Your task to perform on an android device: Is it going to rain tomorrow? Image 0: 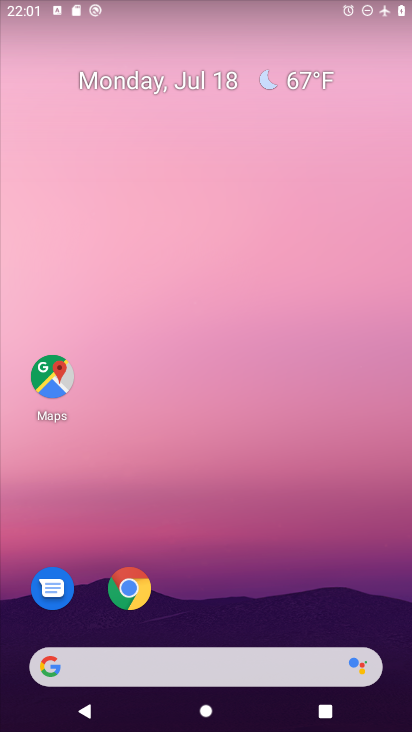
Step 0: drag from (7, 287) to (380, 299)
Your task to perform on an android device: Is it going to rain tomorrow? Image 1: 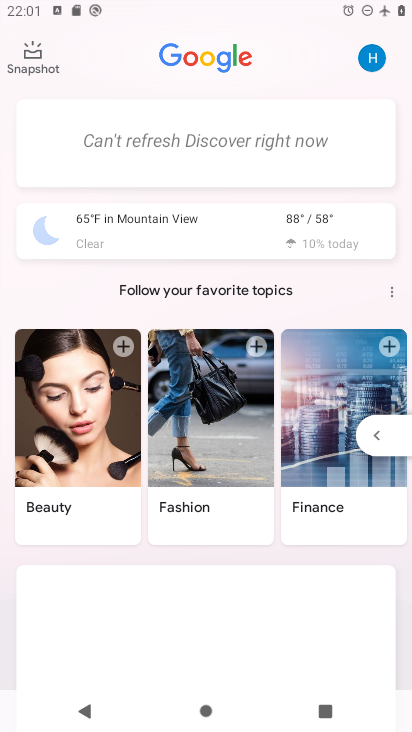
Step 1: click (297, 229)
Your task to perform on an android device: Is it going to rain tomorrow? Image 2: 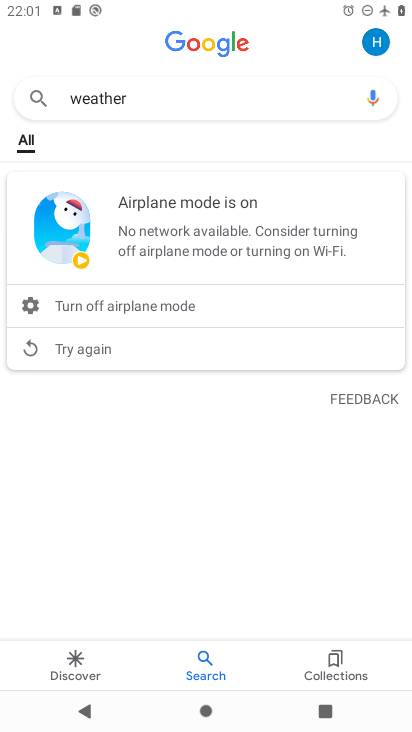
Step 2: click (26, 347)
Your task to perform on an android device: Is it going to rain tomorrow? Image 3: 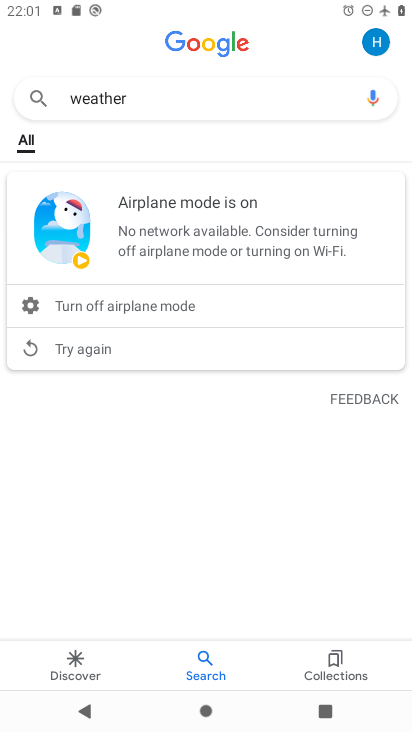
Step 3: click (27, 346)
Your task to perform on an android device: Is it going to rain tomorrow? Image 4: 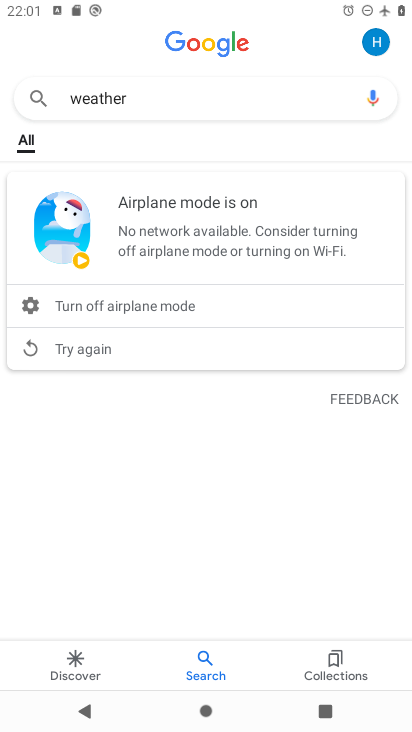
Step 4: task complete